Your task to perform on an android device: turn on wifi Image 0: 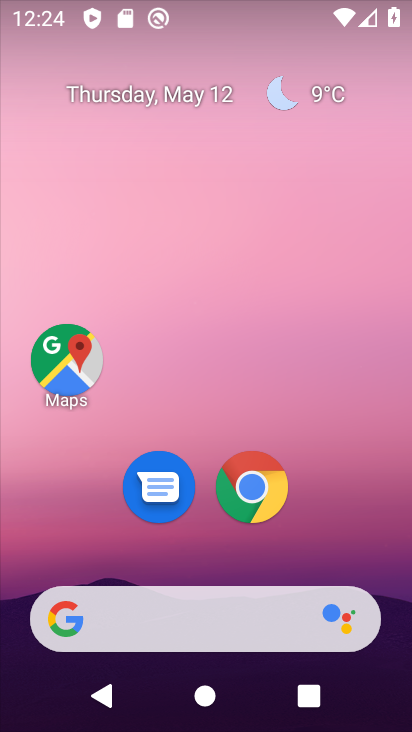
Step 0: drag from (195, 341) to (179, 154)
Your task to perform on an android device: turn on wifi Image 1: 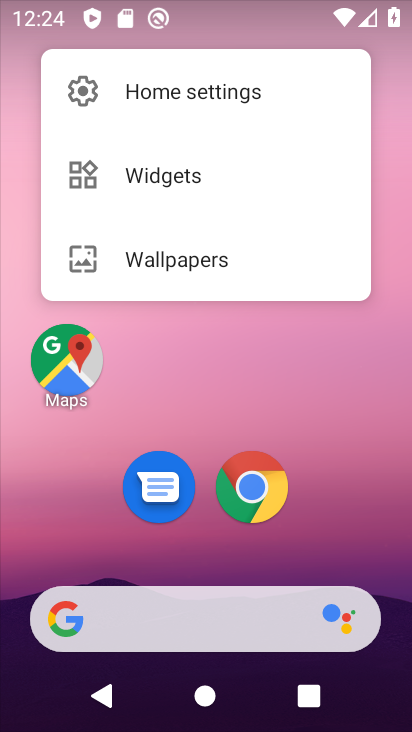
Step 1: drag from (208, 586) to (222, 132)
Your task to perform on an android device: turn on wifi Image 2: 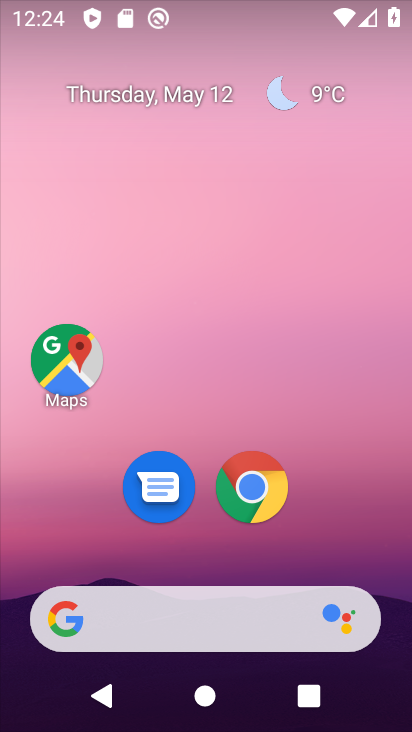
Step 2: drag from (212, 581) to (223, 151)
Your task to perform on an android device: turn on wifi Image 3: 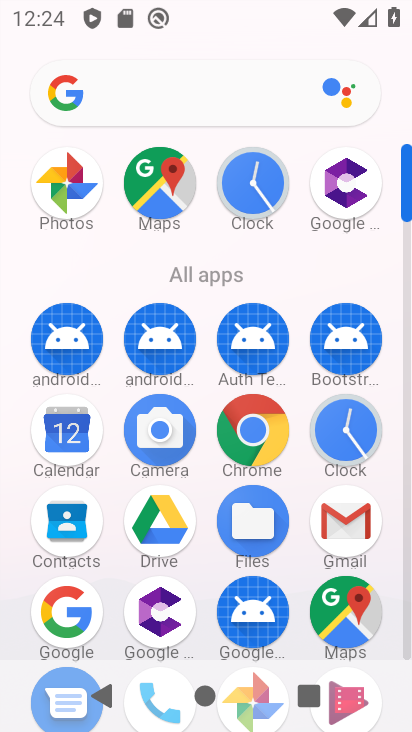
Step 3: drag from (144, 568) to (162, 206)
Your task to perform on an android device: turn on wifi Image 4: 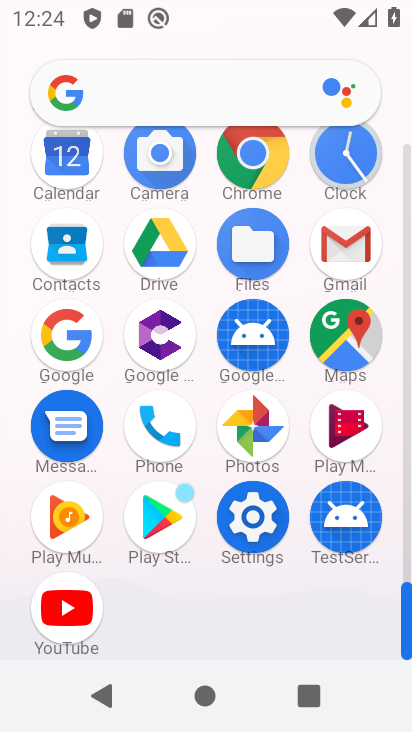
Step 4: click (245, 518)
Your task to perform on an android device: turn on wifi Image 5: 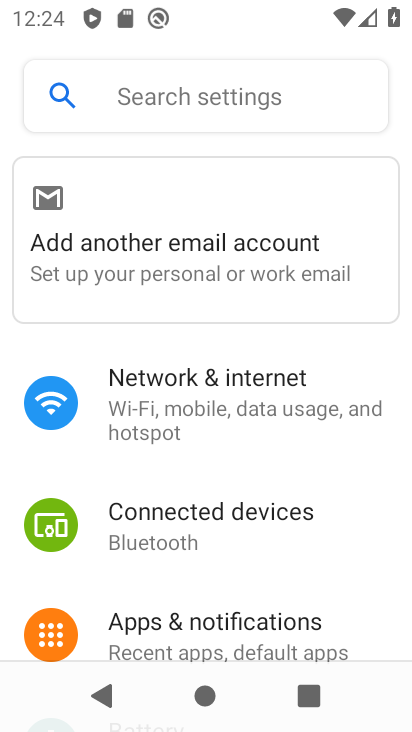
Step 5: click (183, 404)
Your task to perform on an android device: turn on wifi Image 6: 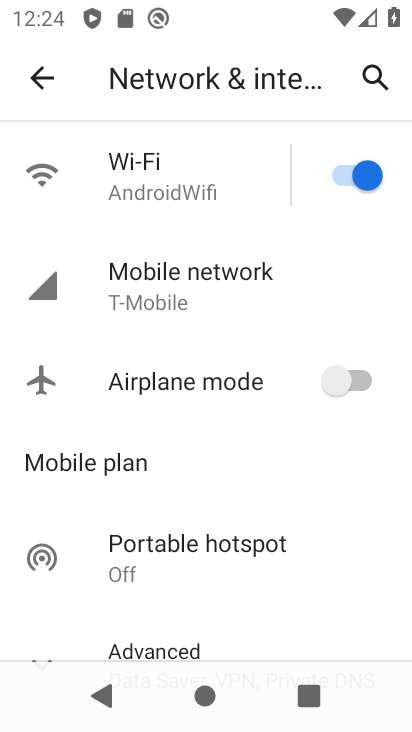
Step 6: task complete